Your task to perform on an android device: turn off notifications in google photos Image 0: 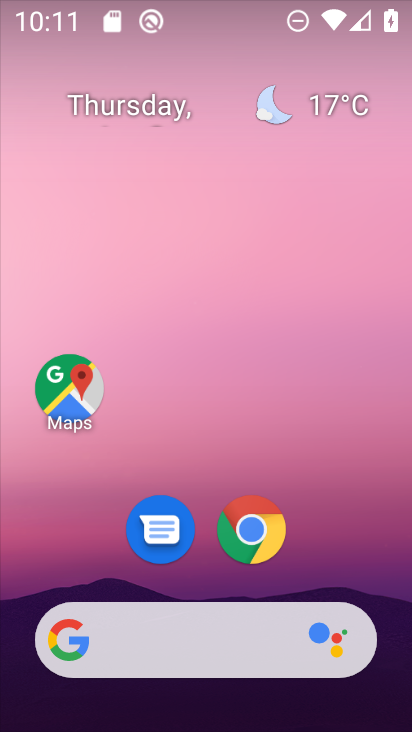
Step 0: drag from (390, 693) to (396, 210)
Your task to perform on an android device: turn off notifications in google photos Image 1: 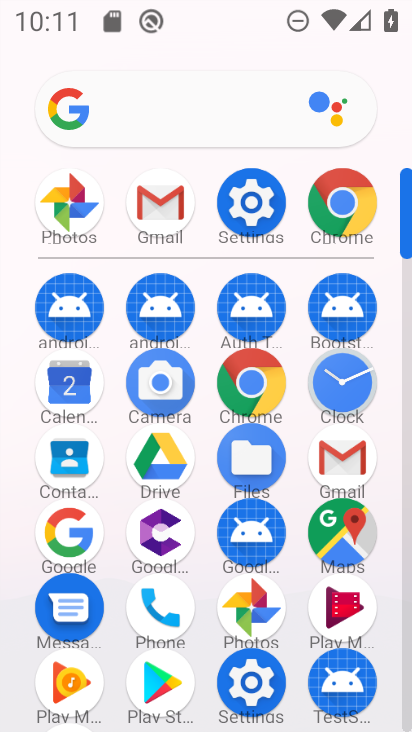
Step 1: click (249, 604)
Your task to perform on an android device: turn off notifications in google photos Image 2: 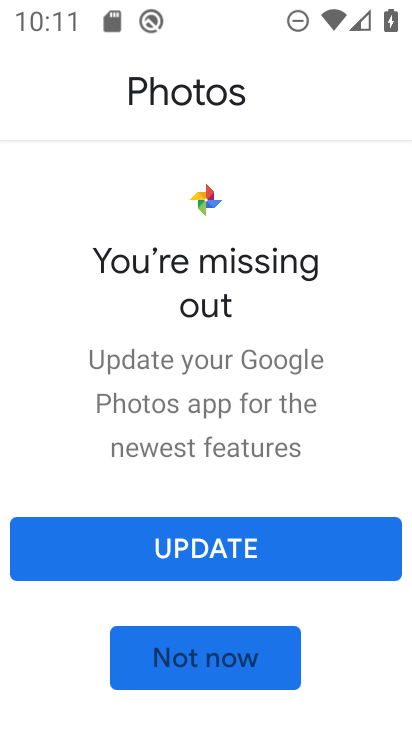
Step 2: click (244, 569)
Your task to perform on an android device: turn off notifications in google photos Image 3: 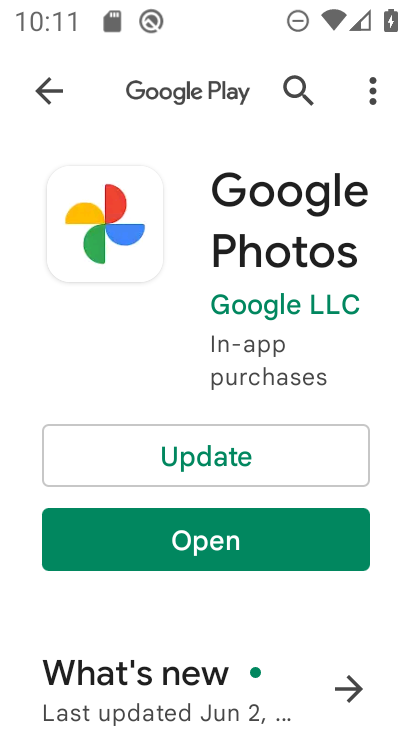
Step 3: click (239, 460)
Your task to perform on an android device: turn off notifications in google photos Image 4: 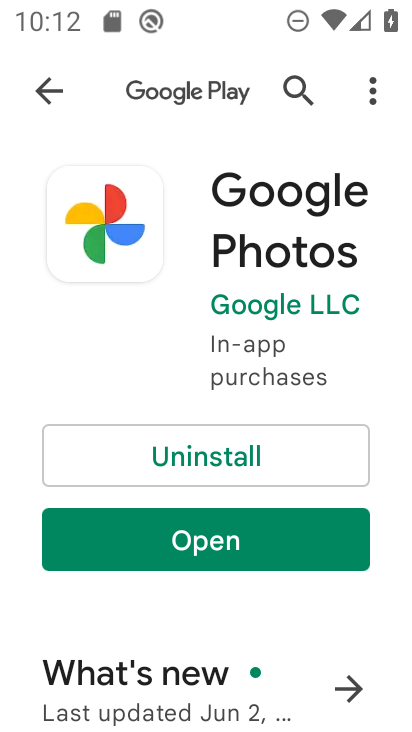
Step 4: click (235, 526)
Your task to perform on an android device: turn off notifications in google photos Image 5: 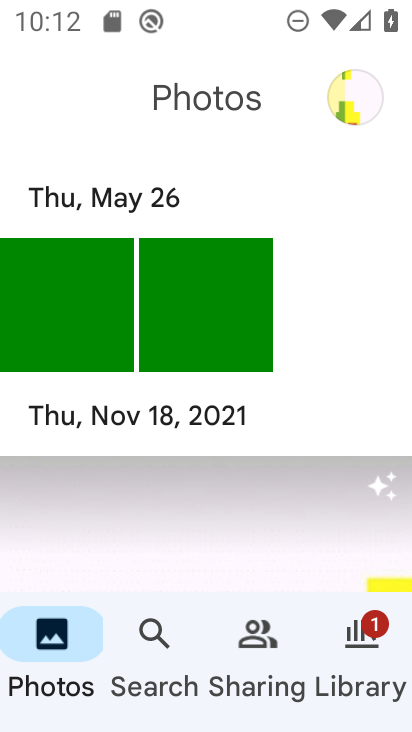
Step 5: task complete